Your task to perform on an android device: Open Yahoo.com Image 0: 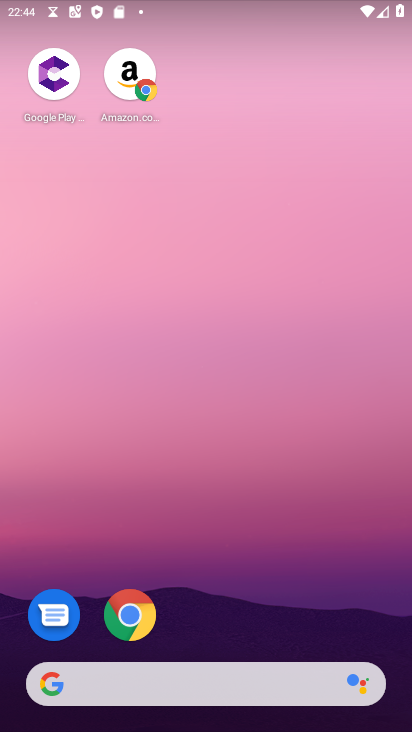
Step 0: click (130, 616)
Your task to perform on an android device: Open Yahoo.com Image 1: 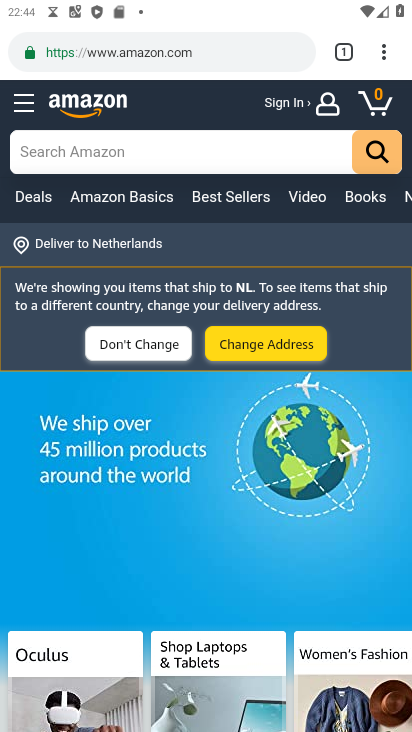
Step 1: click (239, 57)
Your task to perform on an android device: Open Yahoo.com Image 2: 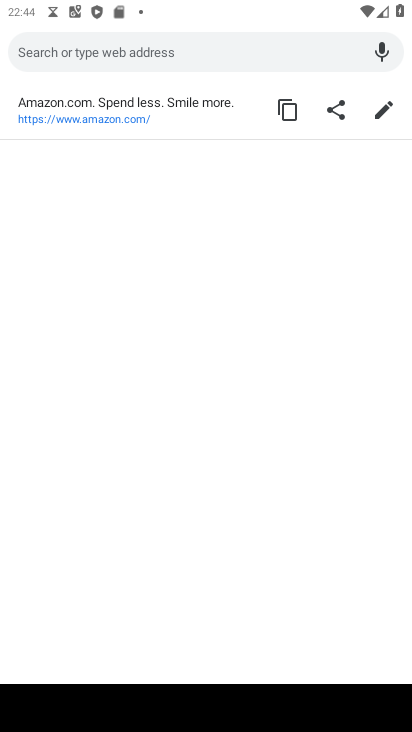
Step 2: type "Yahoo.com"
Your task to perform on an android device: Open Yahoo.com Image 3: 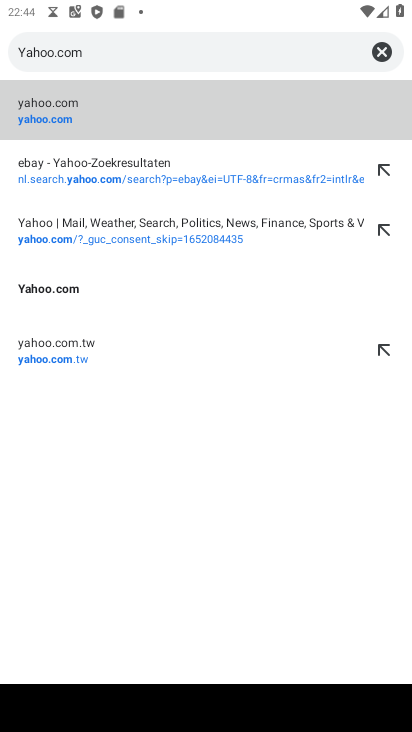
Step 3: click (38, 289)
Your task to perform on an android device: Open Yahoo.com Image 4: 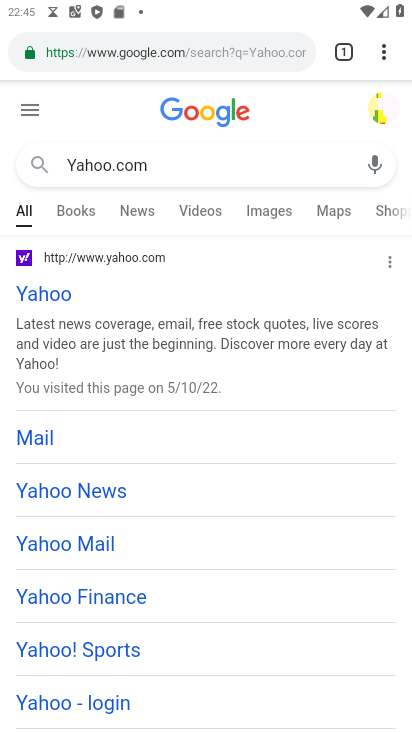
Step 4: click (38, 289)
Your task to perform on an android device: Open Yahoo.com Image 5: 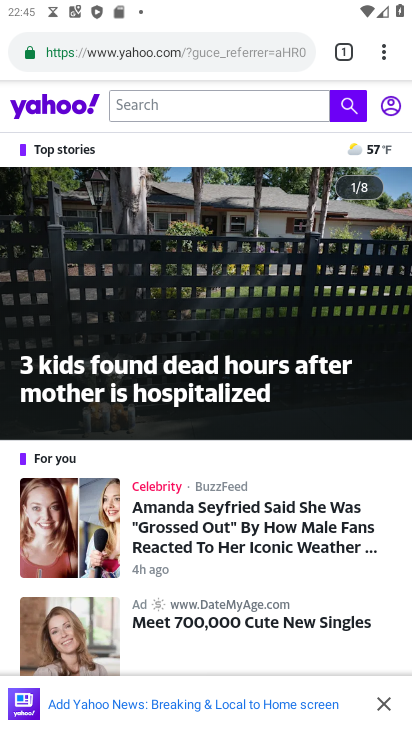
Step 5: task complete